Your task to perform on an android device: toggle improve location accuracy Image 0: 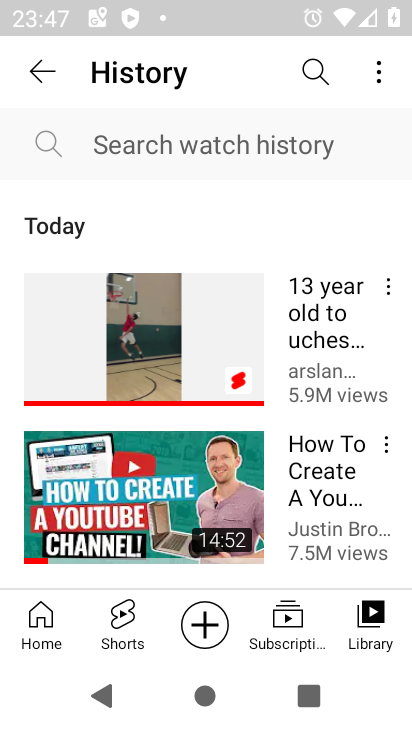
Step 0: press home button
Your task to perform on an android device: toggle improve location accuracy Image 1: 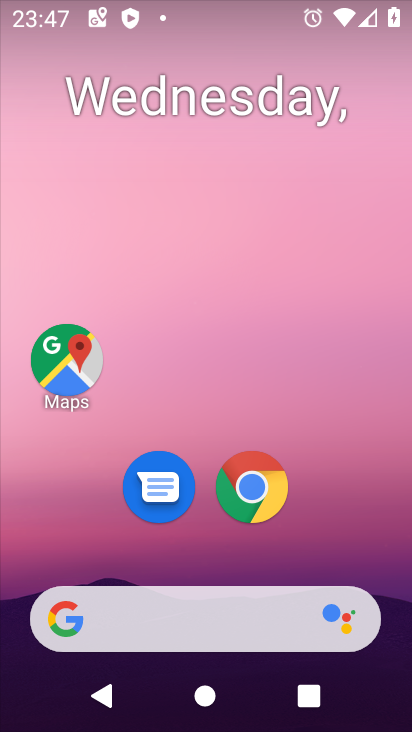
Step 1: drag from (345, 526) to (315, 0)
Your task to perform on an android device: toggle improve location accuracy Image 2: 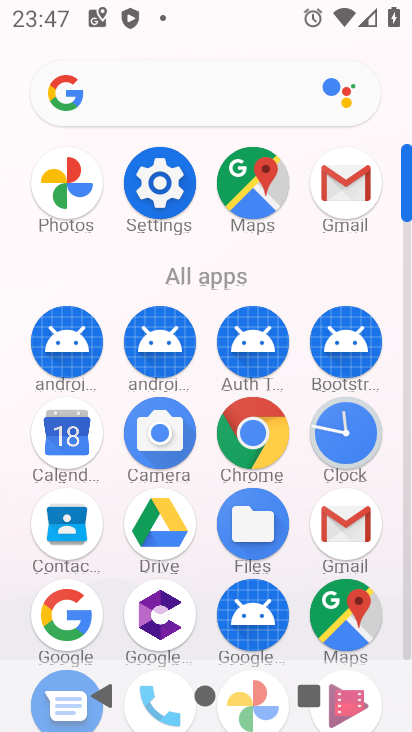
Step 2: click (160, 196)
Your task to perform on an android device: toggle improve location accuracy Image 3: 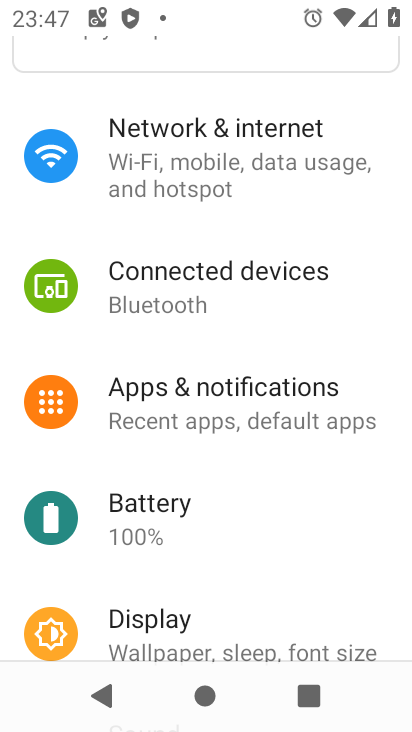
Step 3: drag from (266, 499) to (266, 181)
Your task to perform on an android device: toggle improve location accuracy Image 4: 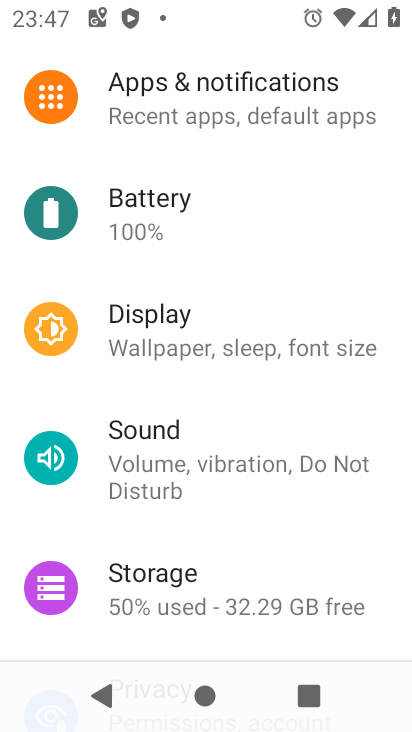
Step 4: drag from (252, 460) to (231, 136)
Your task to perform on an android device: toggle improve location accuracy Image 5: 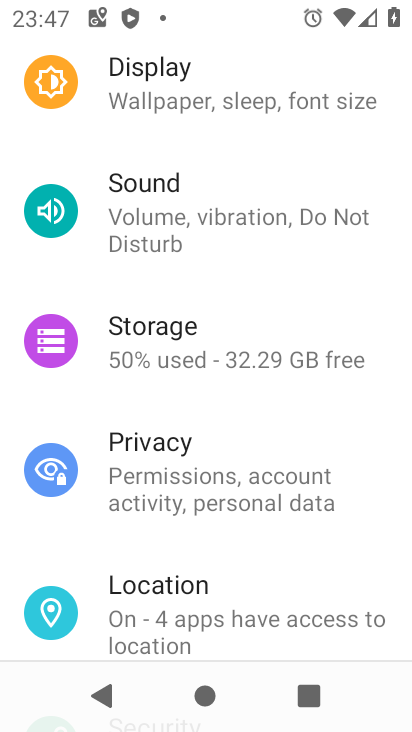
Step 5: click (173, 609)
Your task to perform on an android device: toggle improve location accuracy Image 6: 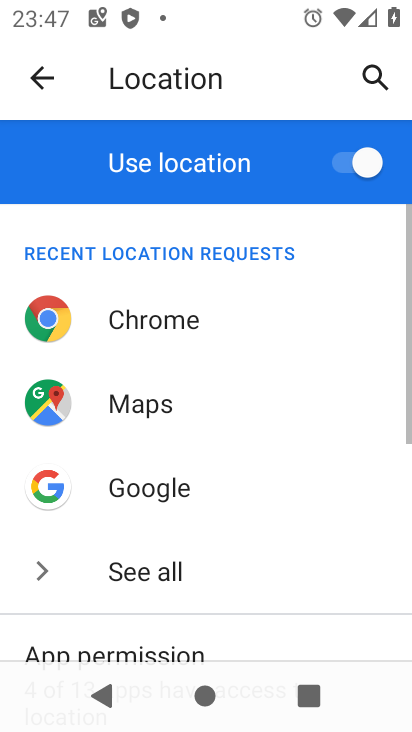
Step 6: drag from (232, 496) to (236, 146)
Your task to perform on an android device: toggle improve location accuracy Image 7: 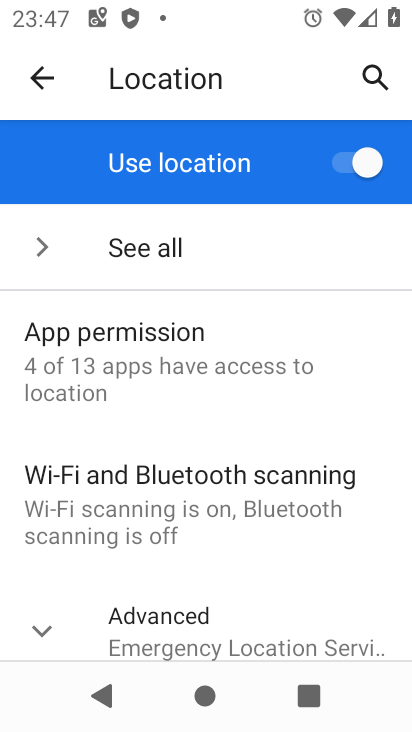
Step 7: drag from (130, 581) to (150, 320)
Your task to perform on an android device: toggle improve location accuracy Image 8: 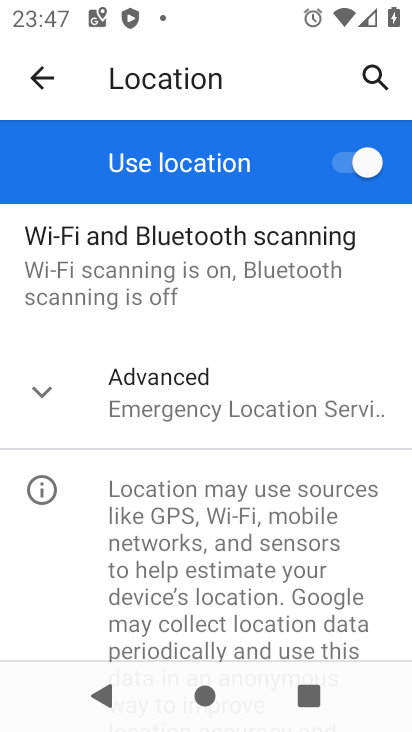
Step 8: click (43, 392)
Your task to perform on an android device: toggle improve location accuracy Image 9: 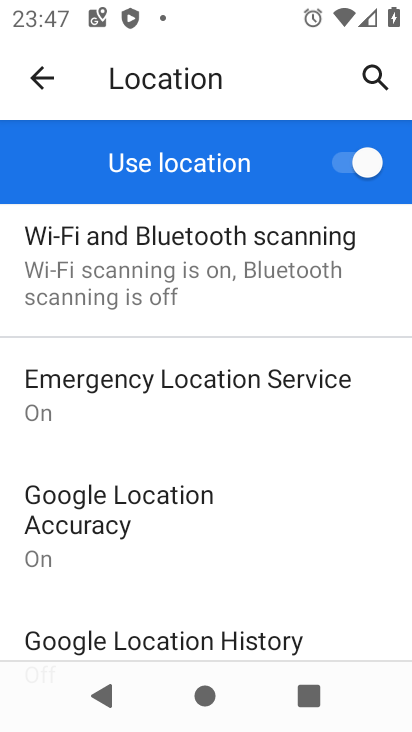
Step 9: click (133, 523)
Your task to perform on an android device: toggle improve location accuracy Image 10: 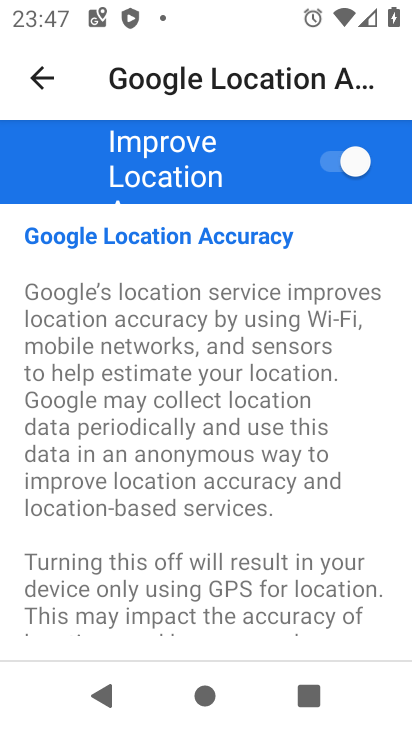
Step 10: click (351, 173)
Your task to perform on an android device: toggle improve location accuracy Image 11: 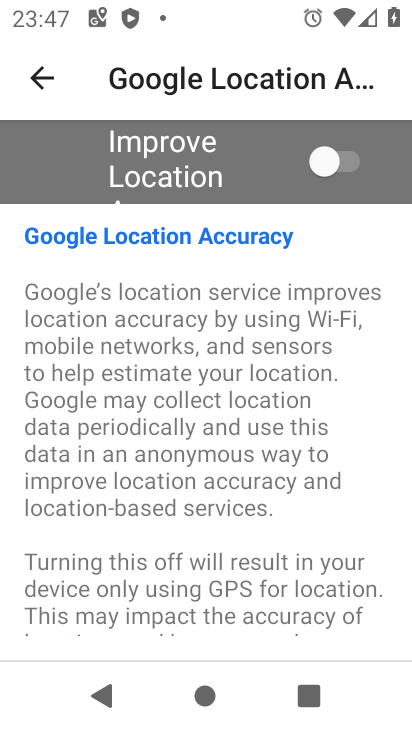
Step 11: task complete